Your task to perform on an android device: see creations saved in the google photos Image 0: 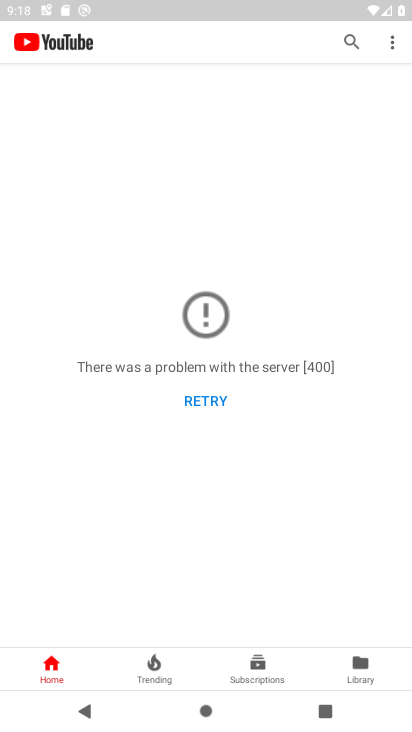
Step 0: press home button
Your task to perform on an android device: see creations saved in the google photos Image 1: 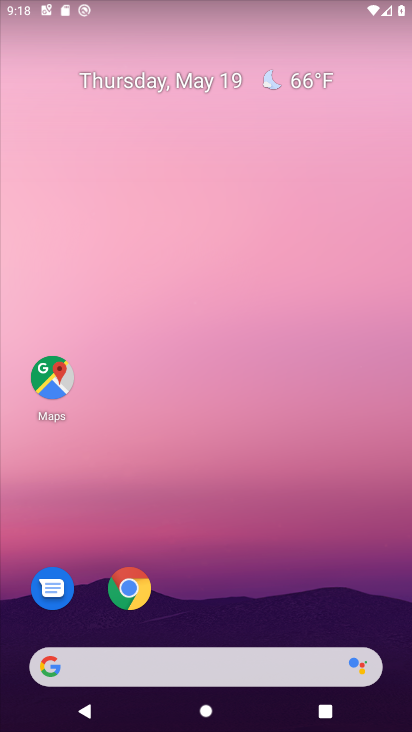
Step 1: drag from (372, 610) to (353, 248)
Your task to perform on an android device: see creations saved in the google photos Image 2: 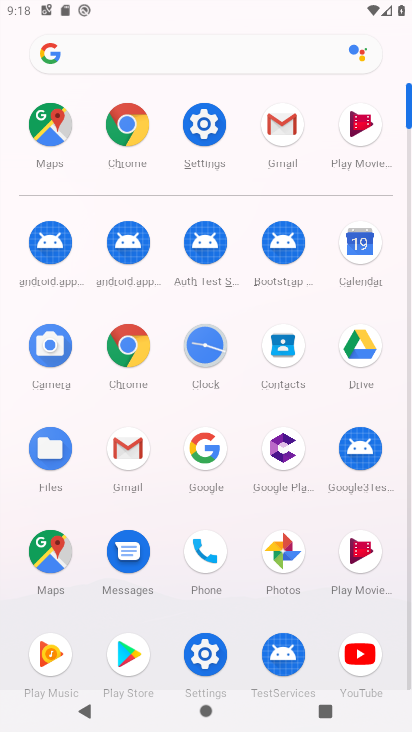
Step 2: click (300, 552)
Your task to perform on an android device: see creations saved in the google photos Image 3: 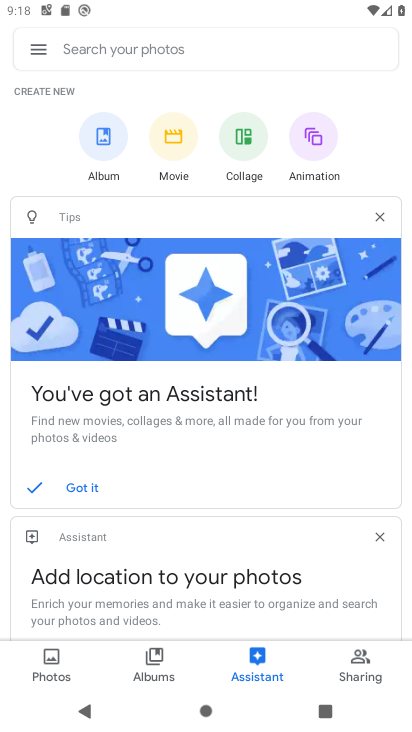
Step 3: click (225, 46)
Your task to perform on an android device: see creations saved in the google photos Image 4: 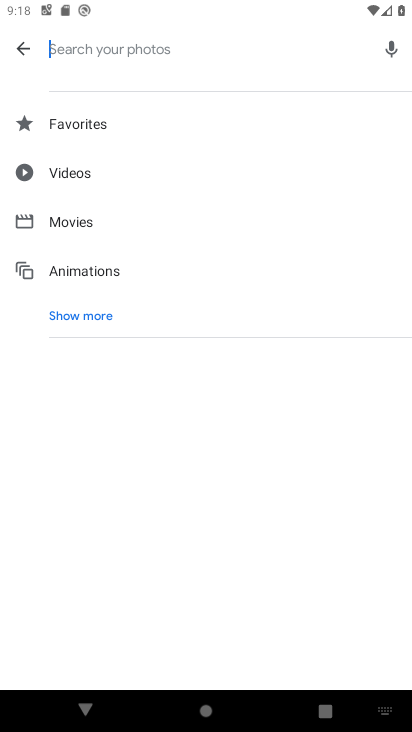
Step 4: click (106, 318)
Your task to perform on an android device: see creations saved in the google photos Image 5: 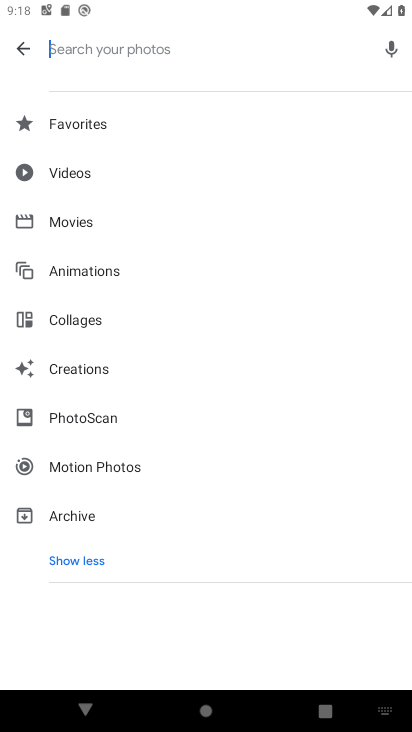
Step 5: click (112, 381)
Your task to perform on an android device: see creations saved in the google photos Image 6: 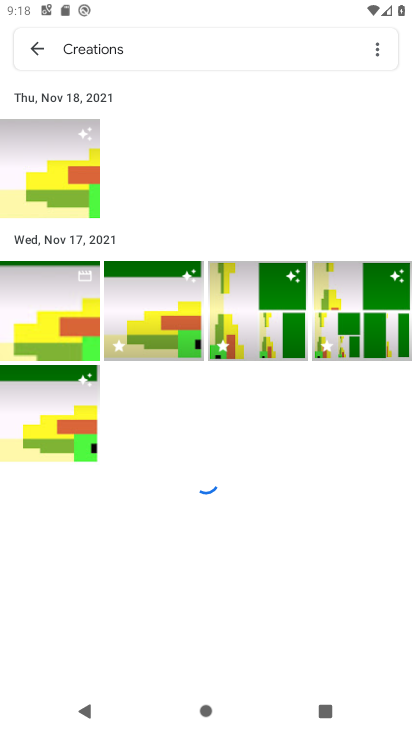
Step 6: task complete